Your task to perform on an android device: change notifications settings Image 0: 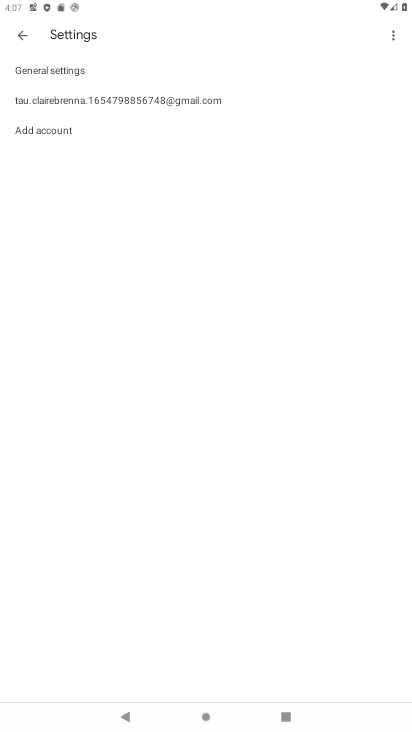
Step 0: press home button
Your task to perform on an android device: change notifications settings Image 1: 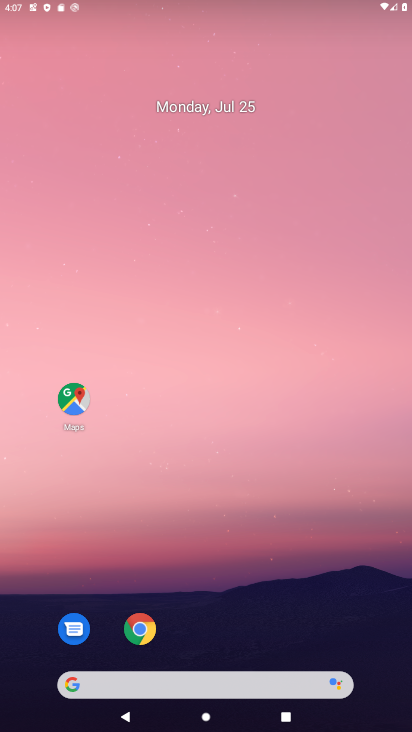
Step 1: drag from (249, 698) to (177, 0)
Your task to perform on an android device: change notifications settings Image 2: 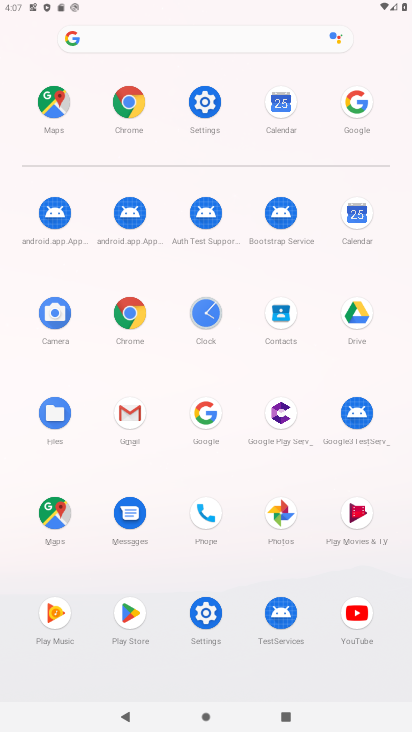
Step 2: click (200, 93)
Your task to perform on an android device: change notifications settings Image 3: 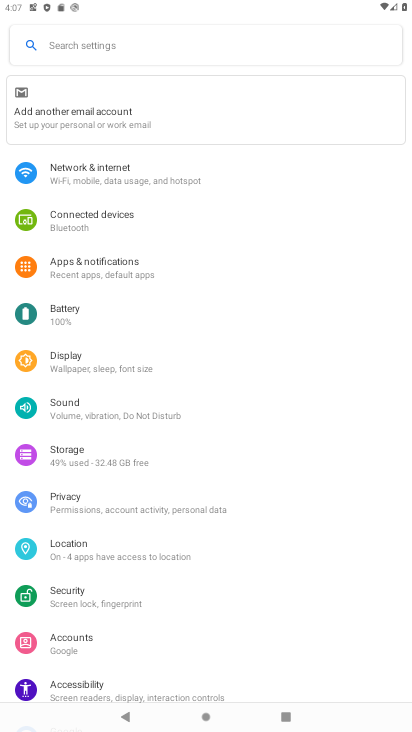
Step 3: click (140, 272)
Your task to perform on an android device: change notifications settings Image 4: 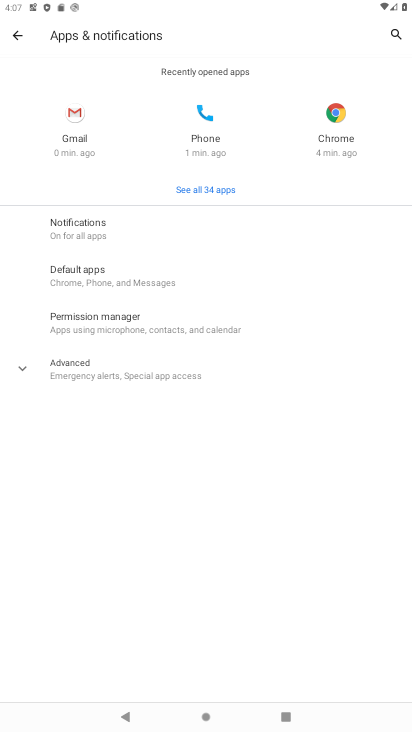
Step 4: click (99, 236)
Your task to perform on an android device: change notifications settings Image 5: 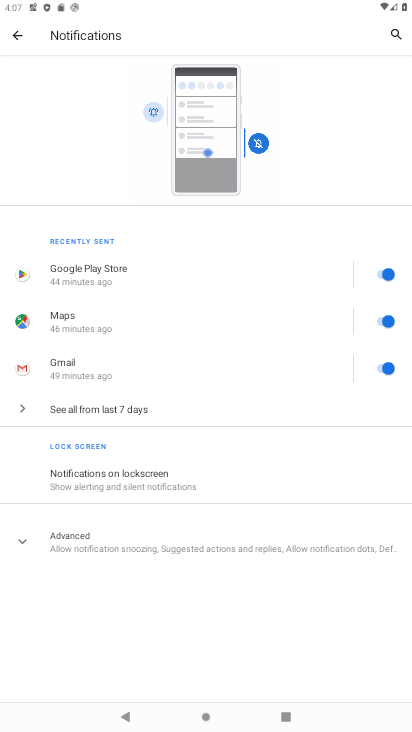
Step 5: click (386, 318)
Your task to perform on an android device: change notifications settings Image 6: 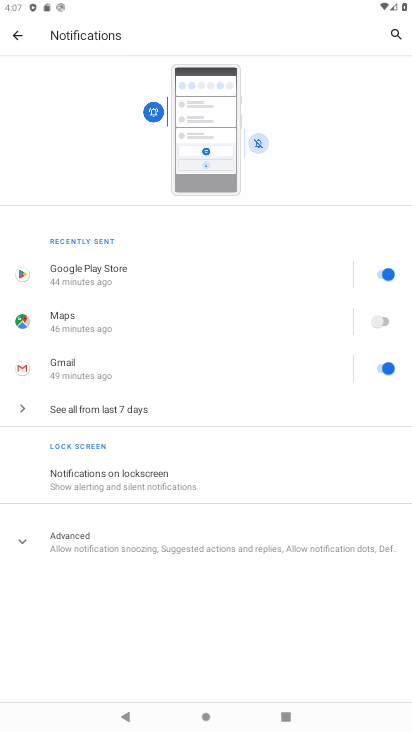
Step 6: task complete